Your task to perform on an android device: make emails show in primary in the gmail app Image 0: 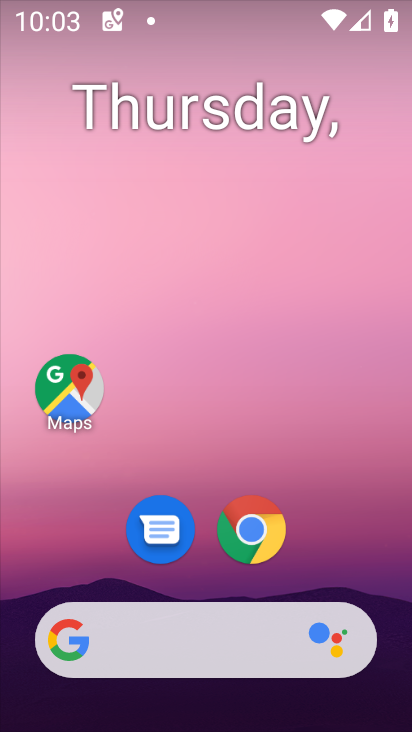
Step 0: drag from (256, 714) to (358, 680)
Your task to perform on an android device: make emails show in primary in the gmail app Image 1: 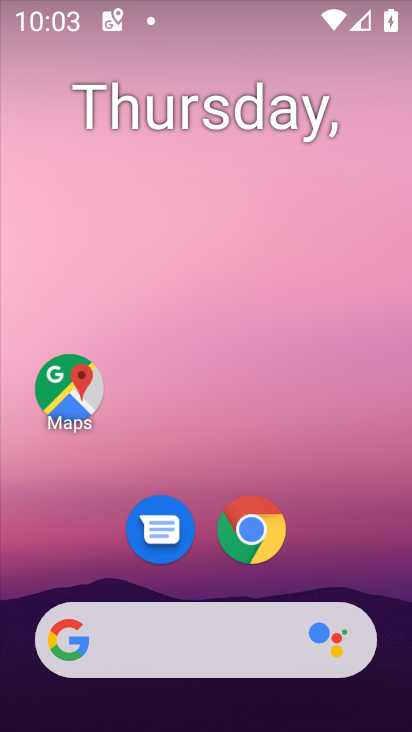
Step 1: drag from (212, 713) to (203, 27)
Your task to perform on an android device: make emails show in primary in the gmail app Image 2: 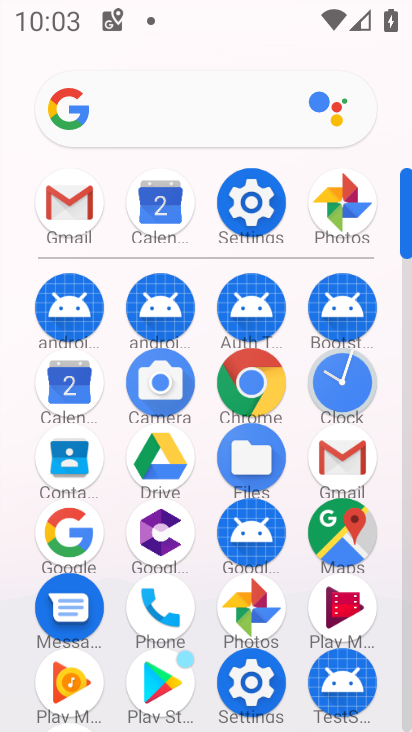
Step 2: click (76, 204)
Your task to perform on an android device: make emails show in primary in the gmail app Image 3: 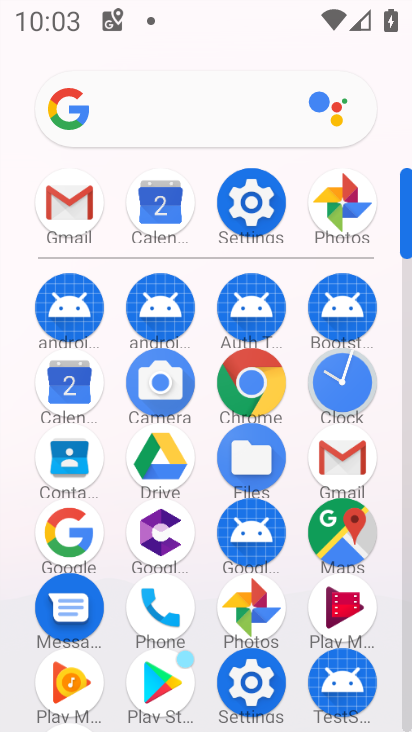
Step 3: click (76, 204)
Your task to perform on an android device: make emails show in primary in the gmail app Image 4: 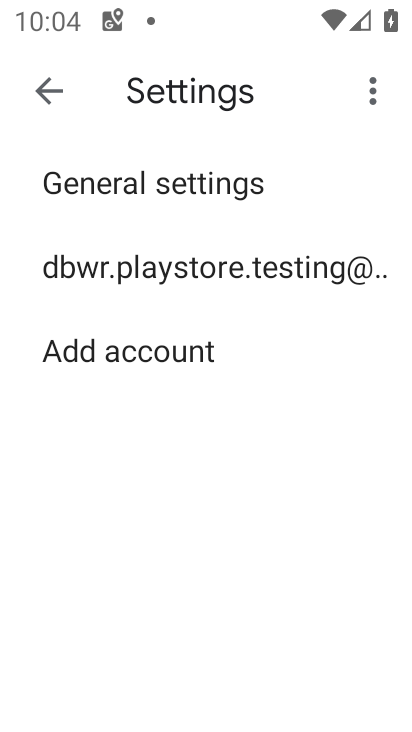
Step 4: click (206, 254)
Your task to perform on an android device: make emails show in primary in the gmail app Image 5: 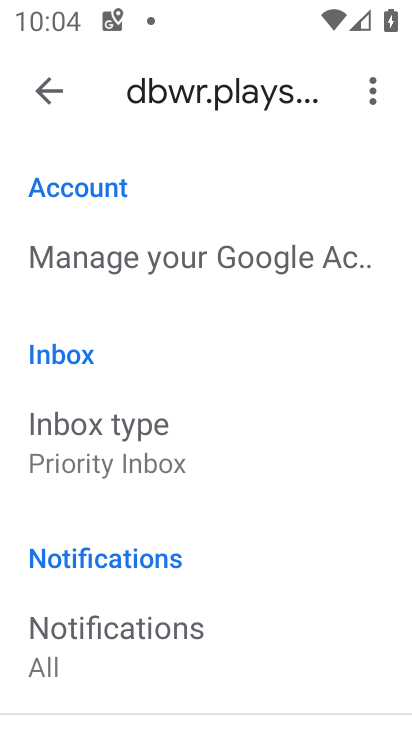
Step 5: click (156, 453)
Your task to perform on an android device: make emails show in primary in the gmail app Image 6: 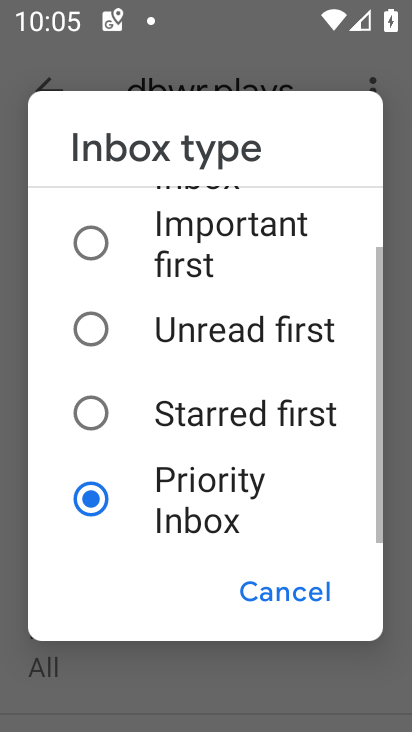
Step 6: drag from (228, 310) to (121, 728)
Your task to perform on an android device: make emails show in primary in the gmail app Image 7: 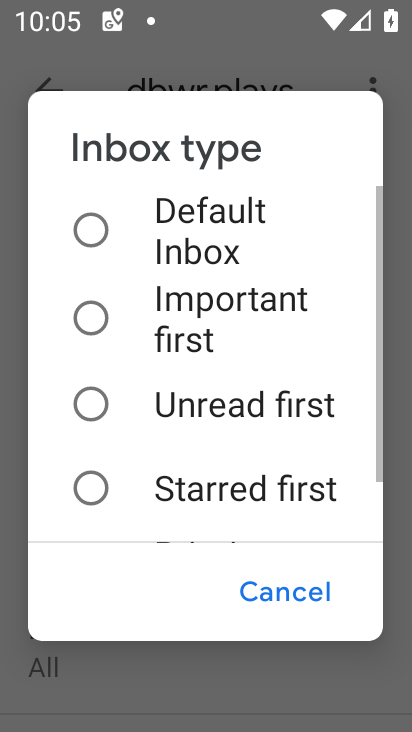
Step 7: drag from (240, 247) to (186, 644)
Your task to perform on an android device: make emails show in primary in the gmail app Image 8: 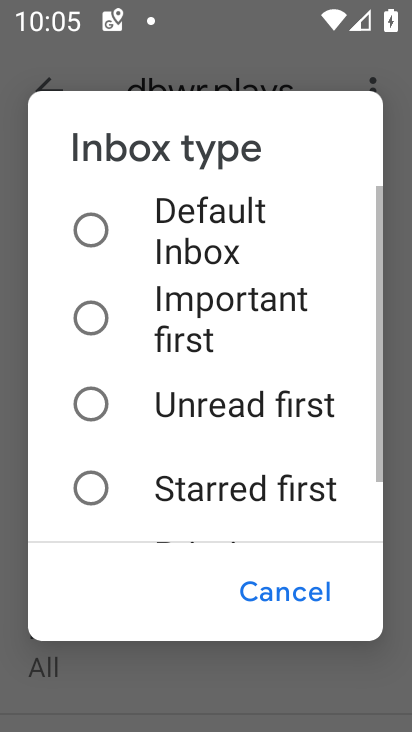
Step 8: drag from (234, 482) to (247, 130)
Your task to perform on an android device: make emails show in primary in the gmail app Image 9: 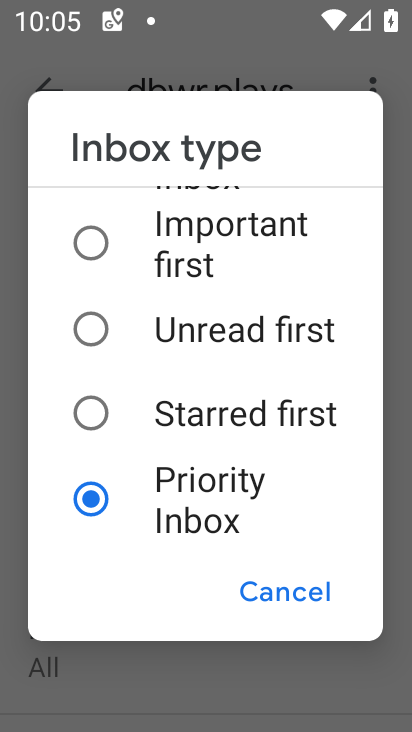
Step 9: drag from (215, 262) to (126, 678)
Your task to perform on an android device: make emails show in primary in the gmail app Image 10: 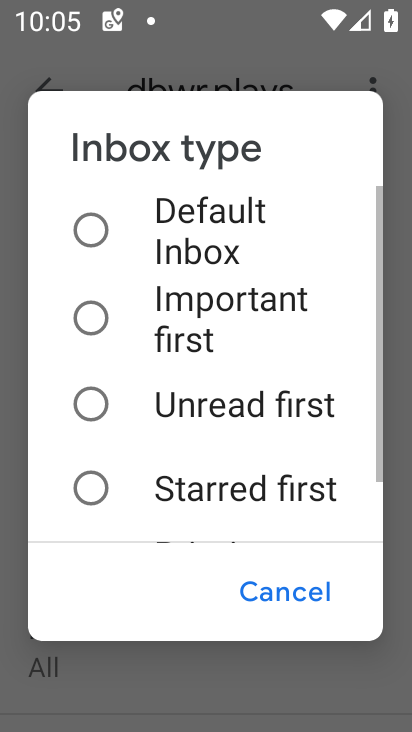
Step 10: click (237, 226)
Your task to perform on an android device: make emails show in primary in the gmail app Image 11: 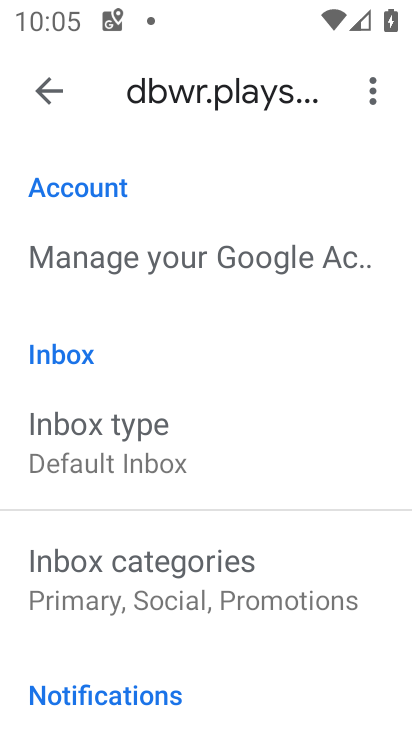
Step 11: click (162, 598)
Your task to perform on an android device: make emails show in primary in the gmail app Image 12: 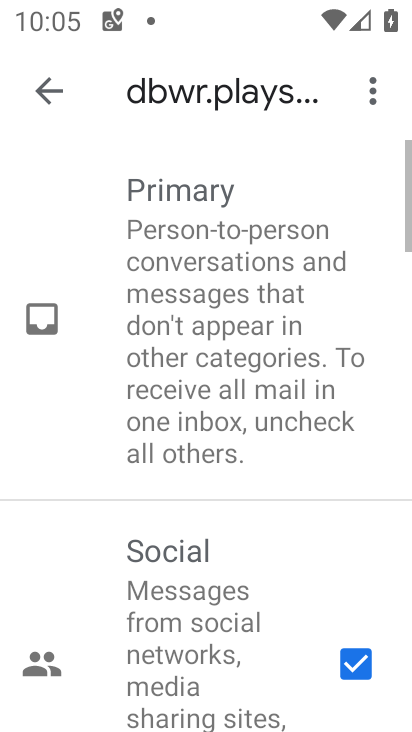
Step 12: drag from (238, 623) to (170, 114)
Your task to perform on an android device: make emails show in primary in the gmail app Image 13: 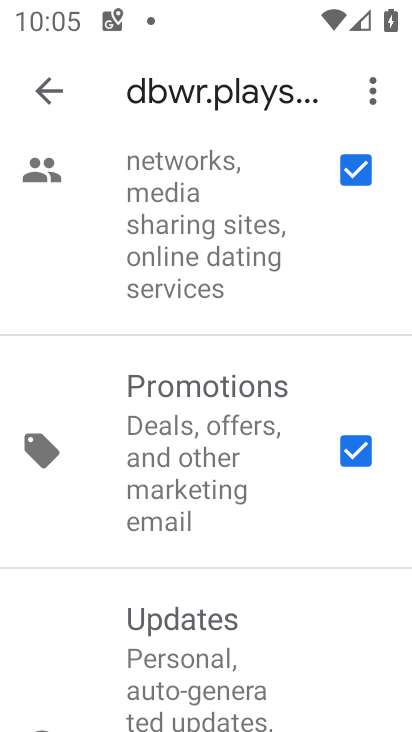
Step 13: click (353, 468)
Your task to perform on an android device: make emails show in primary in the gmail app Image 14: 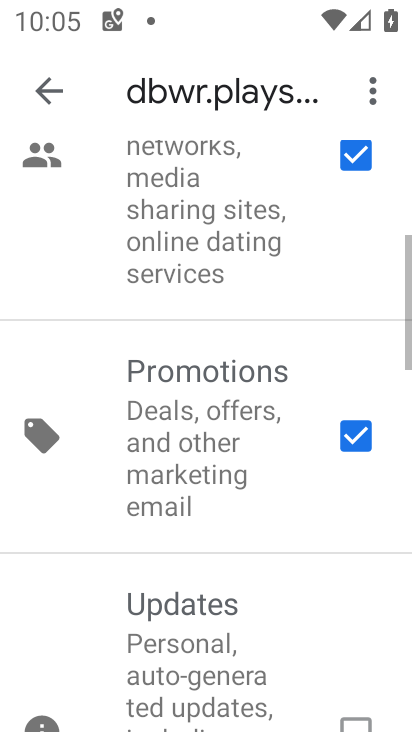
Step 14: click (358, 170)
Your task to perform on an android device: make emails show in primary in the gmail app Image 15: 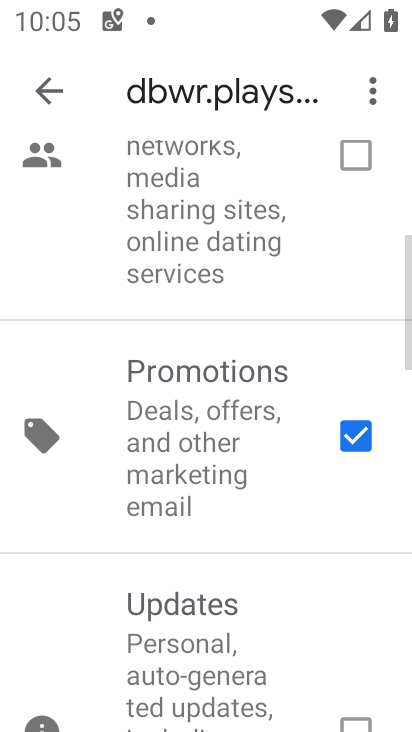
Step 15: click (353, 440)
Your task to perform on an android device: make emails show in primary in the gmail app Image 16: 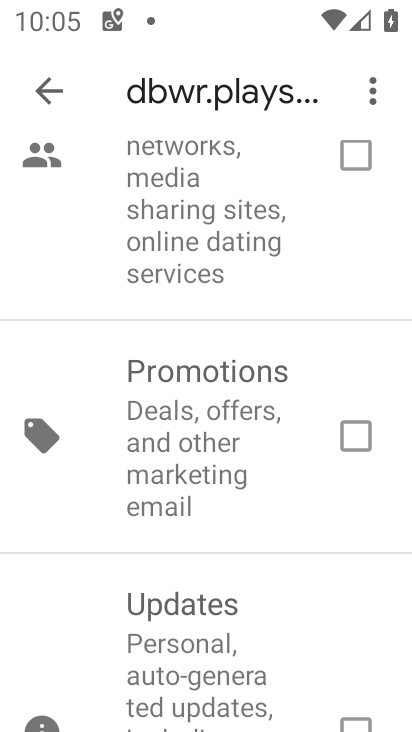
Step 16: task complete